Your task to perform on an android device: Open calendar and show me the third week of next month Image 0: 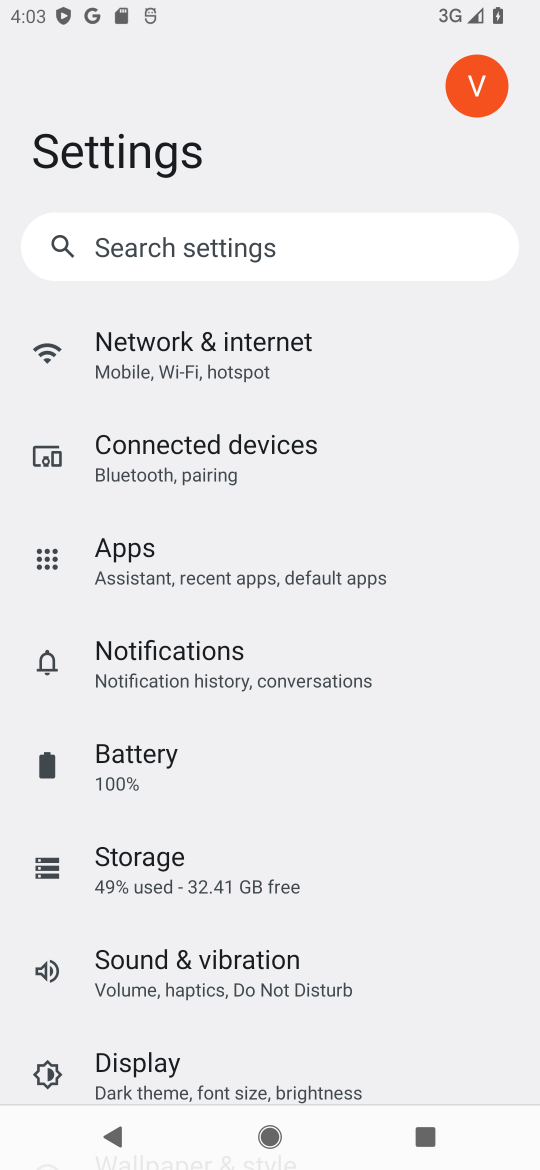
Step 0: press back button
Your task to perform on an android device: Open calendar and show me the third week of next month Image 1: 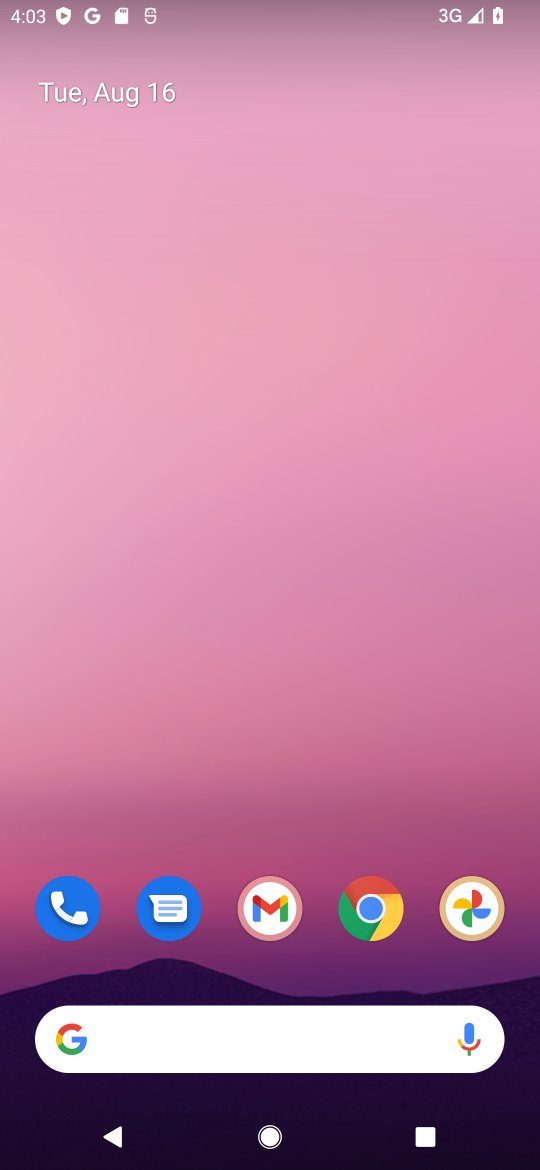
Step 1: drag from (156, 925) to (424, 22)
Your task to perform on an android device: Open calendar and show me the third week of next month Image 2: 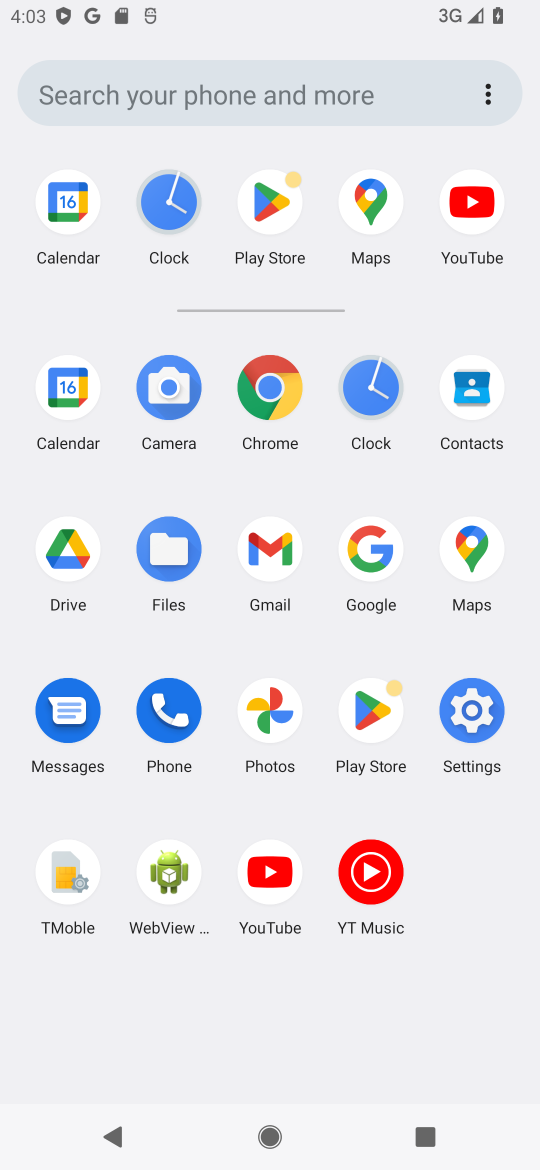
Step 2: click (62, 389)
Your task to perform on an android device: Open calendar and show me the third week of next month Image 3: 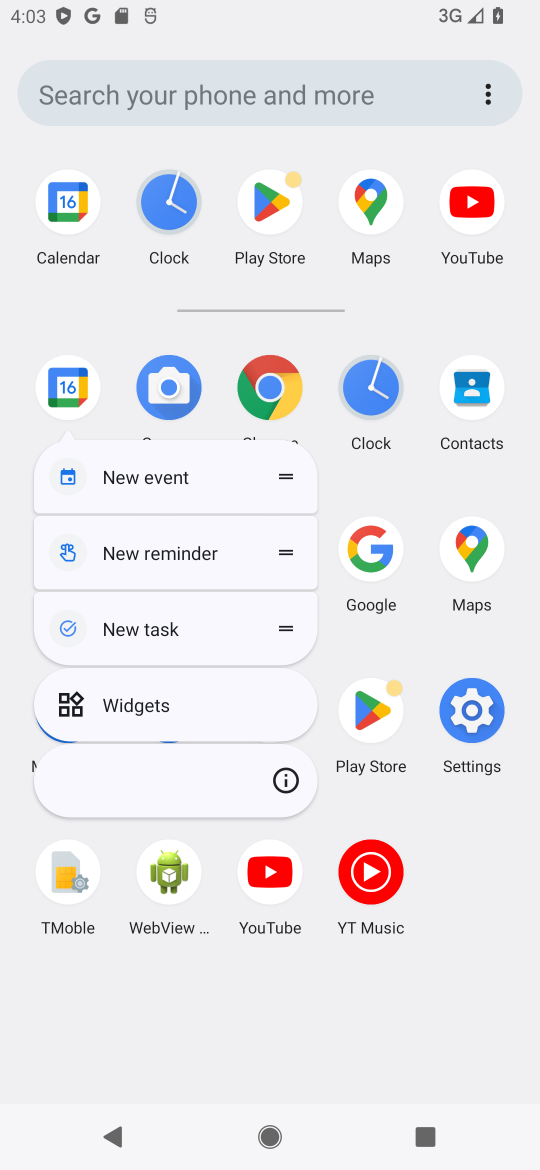
Step 3: click (61, 192)
Your task to perform on an android device: Open calendar and show me the third week of next month Image 4: 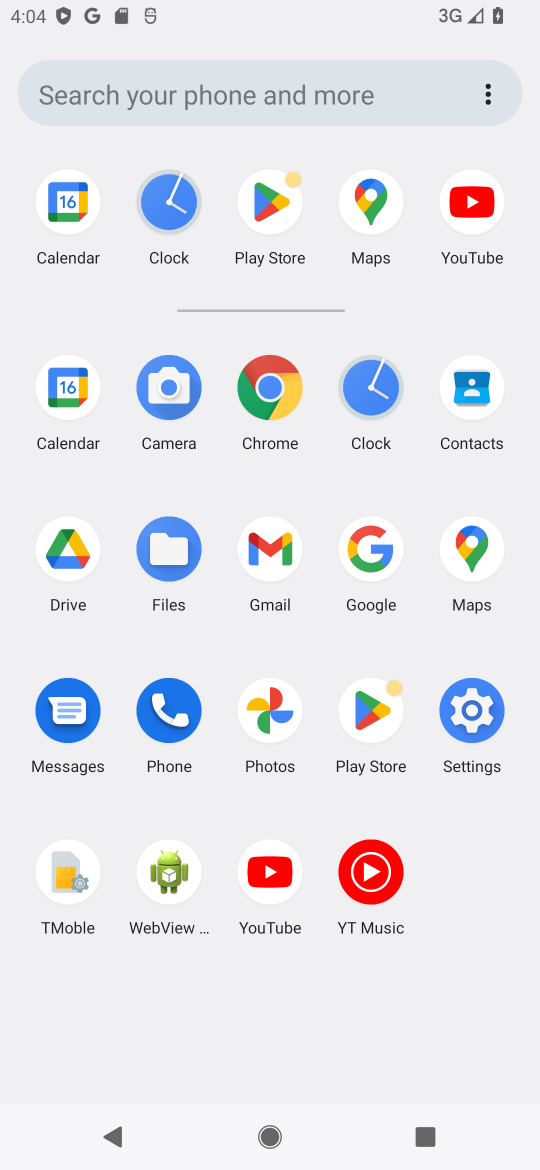
Step 4: click (83, 212)
Your task to perform on an android device: Open calendar and show me the third week of next month Image 5: 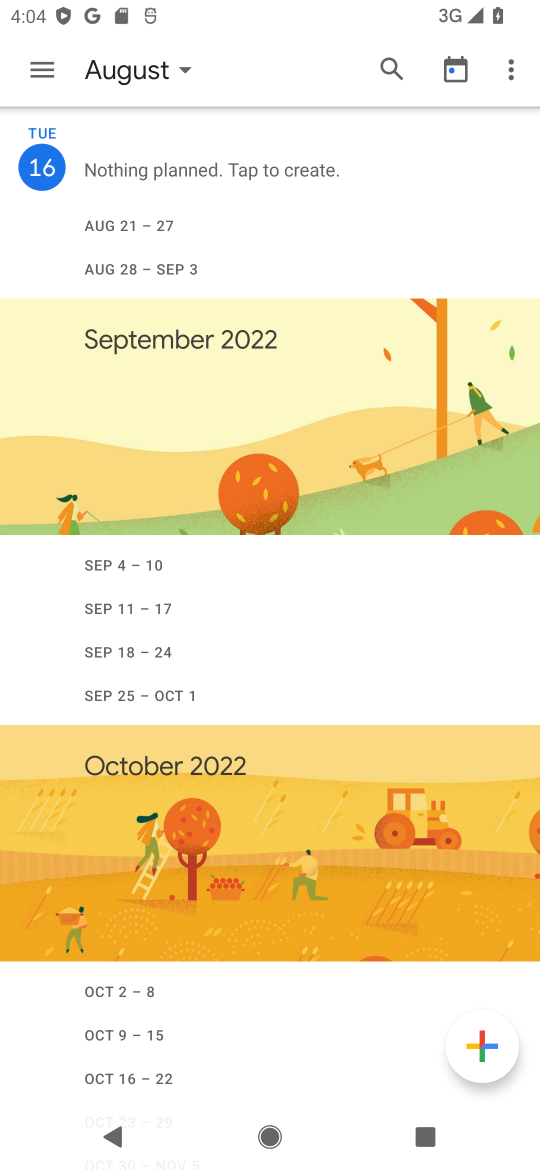
Step 5: click (166, 82)
Your task to perform on an android device: Open calendar and show me the third week of next month Image 6: 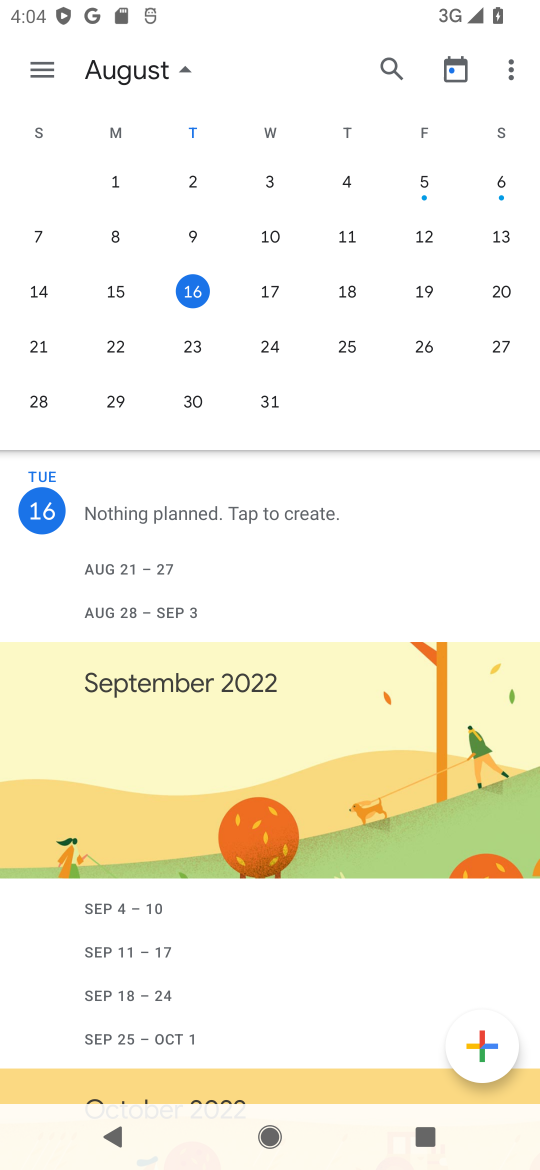
Step 6: drag from (500, 296) to (0, 321)
Your task to perform on an android device: Open calendar and show me the third week of next month Image 7: 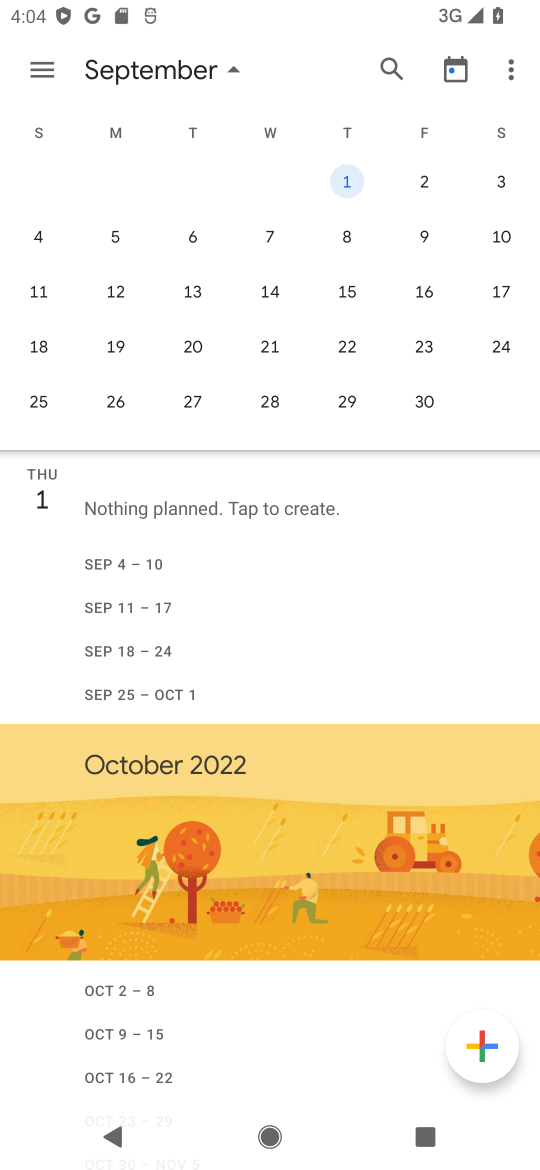
Step 7: click (121, 283)
Your task to perform on an android device: Open calendar and show me the third week of next month Image 8: 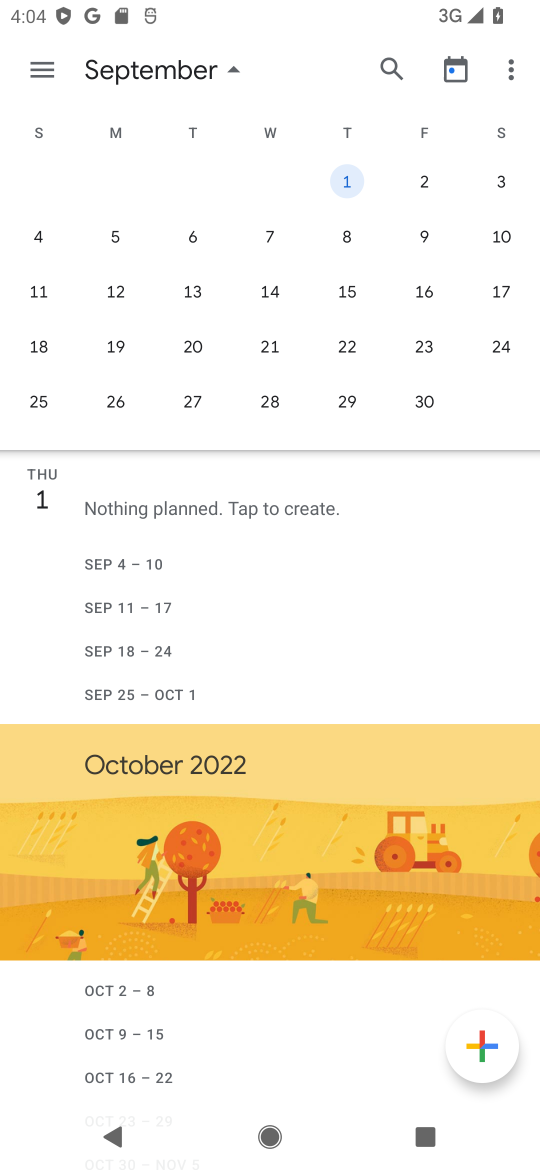
Step 8: click (118, 298)
Your task to perform on an android device: Open calendar and show me the third week of next month Image 9: 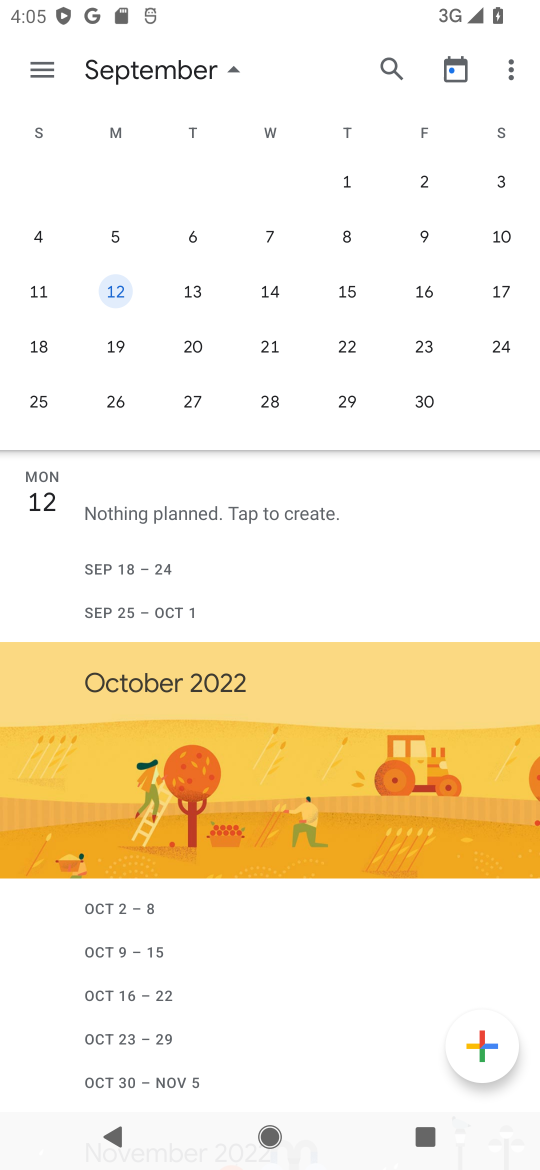
Step 9: task complete